Your task to perform on an android device: Go to network settings Image 0: 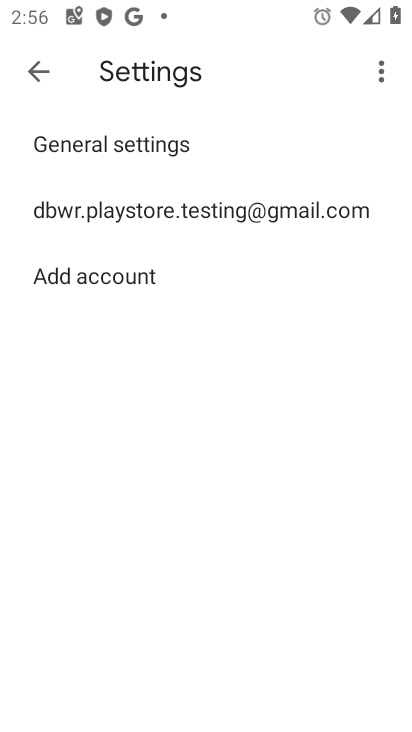
Step 0: press home button
Your task to perform on an android device: Go to network settings Image 1: 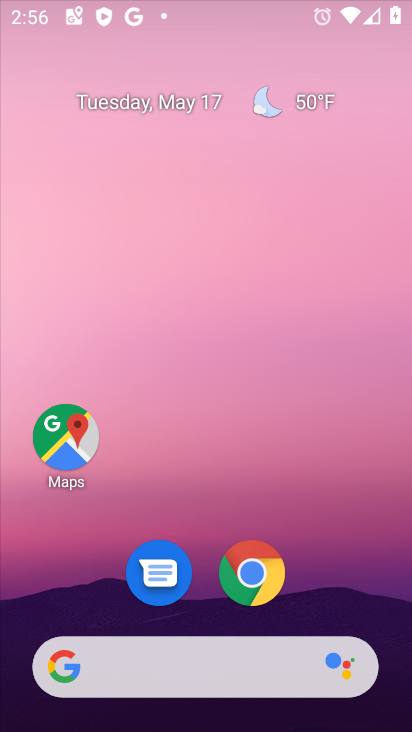
Step 1: drag from (225, 526) to (237, 81)
Your task to perform on an android device: Go to network settings Image 2: 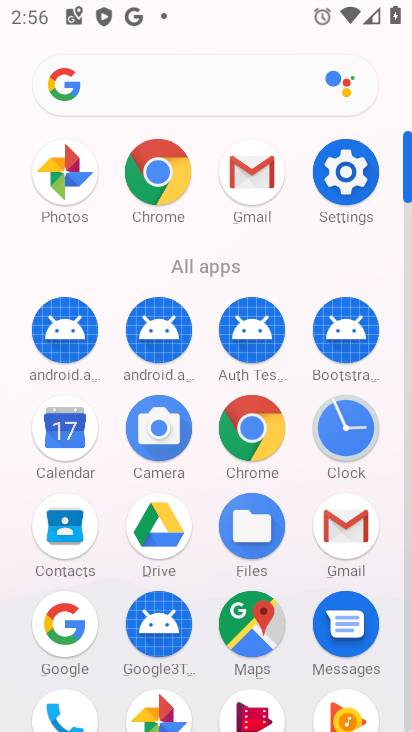
Step 2: click (344, 171)
Your task to perform on an android device: Go to network settings Image 3: 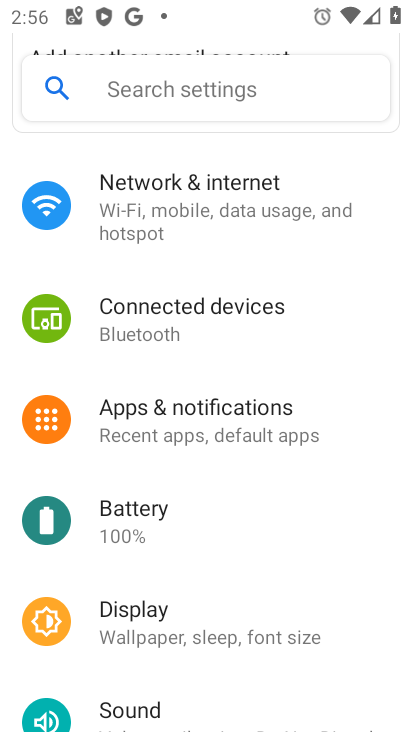
Step 3: click (208, 219)
Your task to perform on an android device: Go to network settings Image 4: 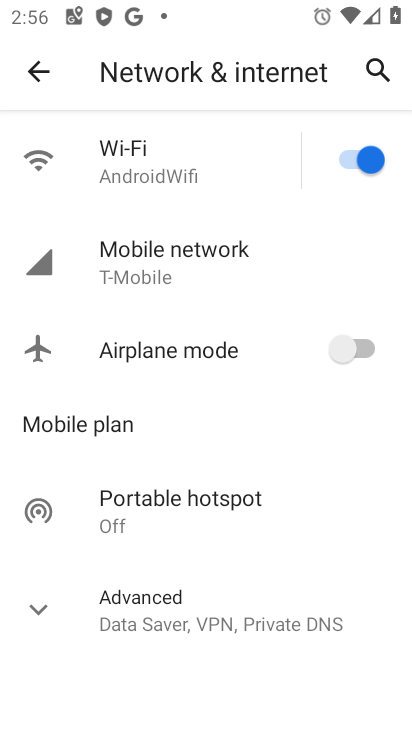
Step 4: task complete